Your task to perform on an android device: Open Google Maps and go to "Timeline" Image 0: 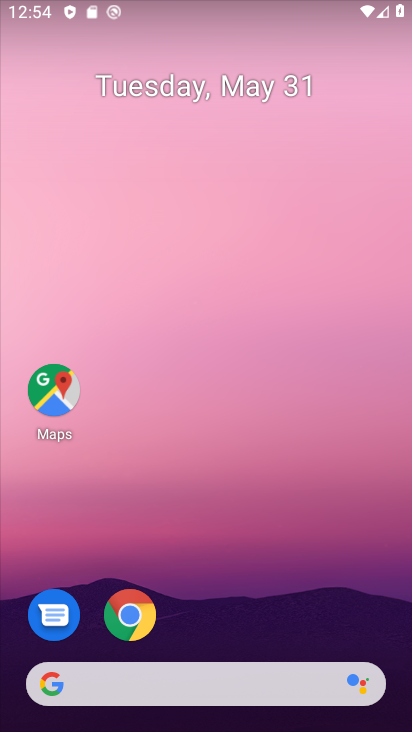
Step 0: drag from (301, 592) to (279, 143)
Your task to perform on an android device: Open Google Maps and go to "Timeline" Image 1: 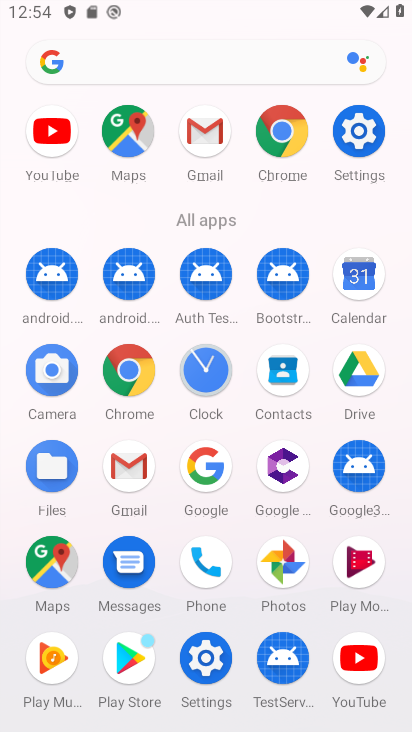
Step 1: click (52, 570)
Your task to perform on an android device: Open Google Maps and go to "Timeline" Image 2: 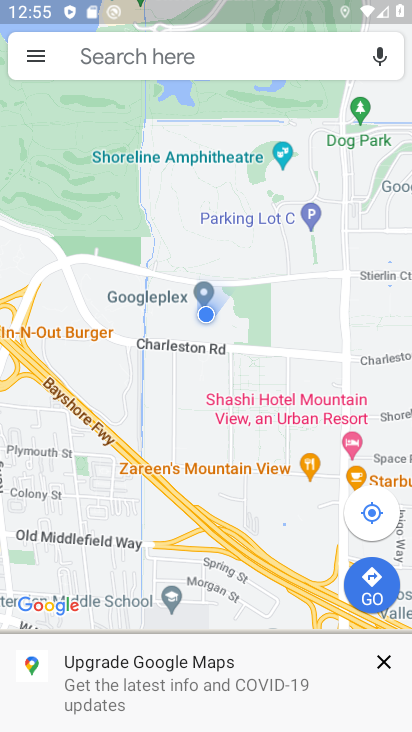
Step 2: click (45, 62)
Your task to perform on an android device: Open Google Maps and go to "Timeline" Image 3: 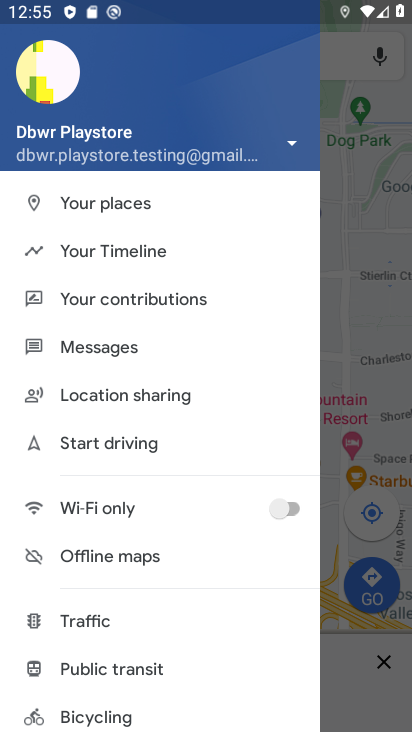
Step 3: click (121, 255)
Your task to perform on an android device: Open Google Maps and go to "Timeline" Image 4: 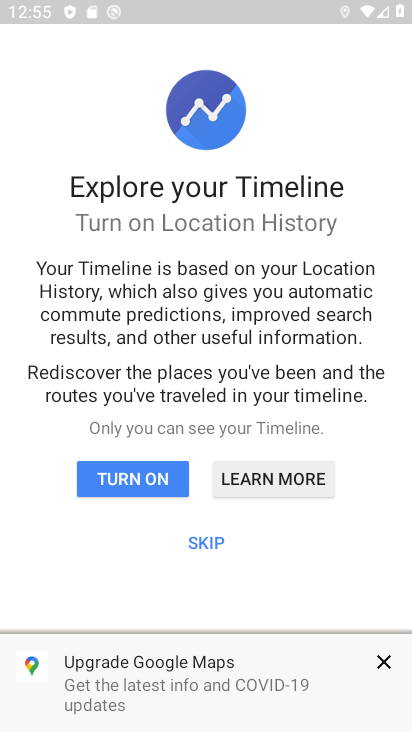
Step 4: click (210, 539)
Your task to perform on an android device: Open Google Maps and go to "Timeline" Image 5: 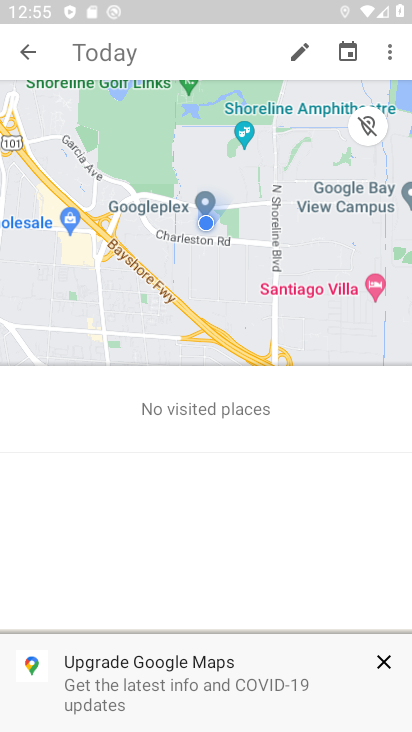
Step 5: task complete